Your task to perform on an android device: Open settings on Google Maps Image 0: 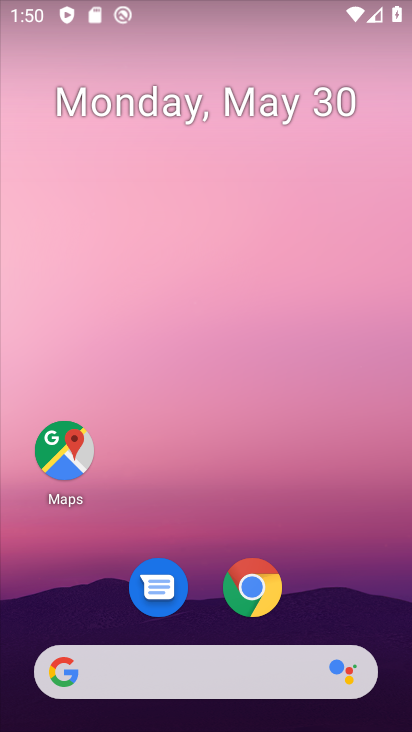
Step 0: click (67, 457)
Your task to perform on an android device: Open settings on Google Maps Image 1: 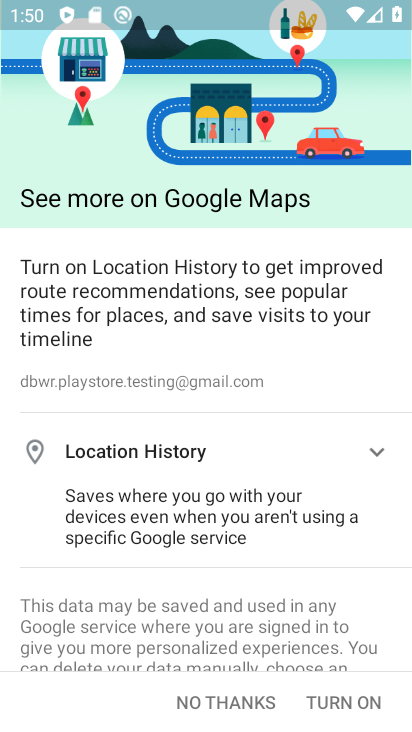
Step 1: click (176, 693)
Your task to perform on an android device: Open settings on Google Maps Image 2: 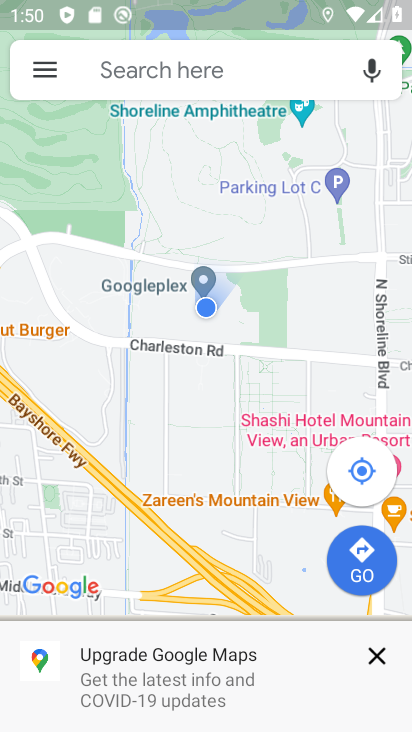
Step 2: click (40, 75)
Your task to perform on an android device: Open settings on Google Maps Image 3: 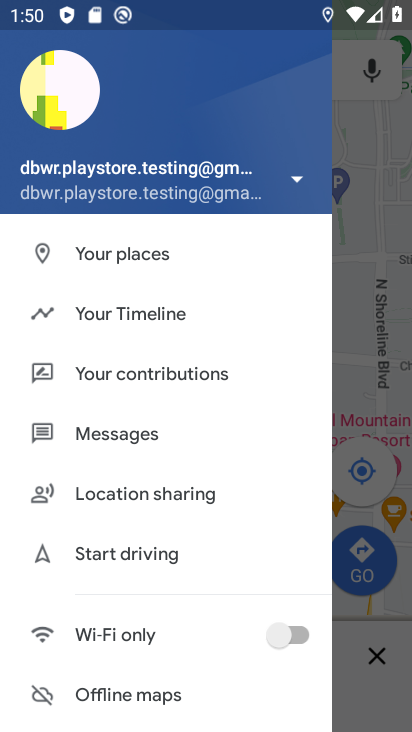
Step 3: drag from (193, 517) to (222, 116)
Your task to perform on an android device: Open settings on Google Maps Image 4: 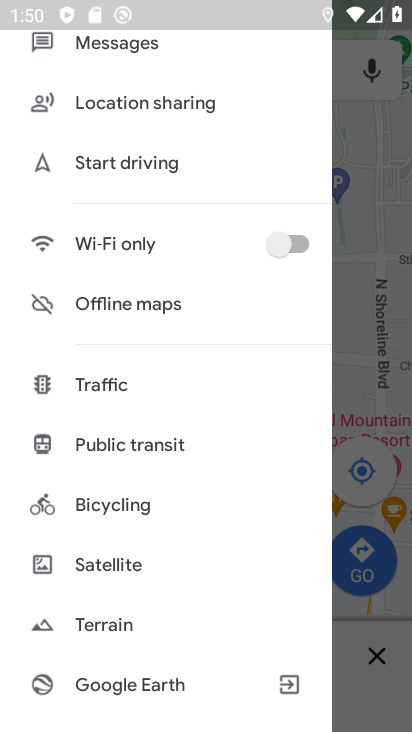
Step 4: drag from (206, 587) to (249, 163)
Your task to perform on an android device: Open settings on Google Maps Image 5: 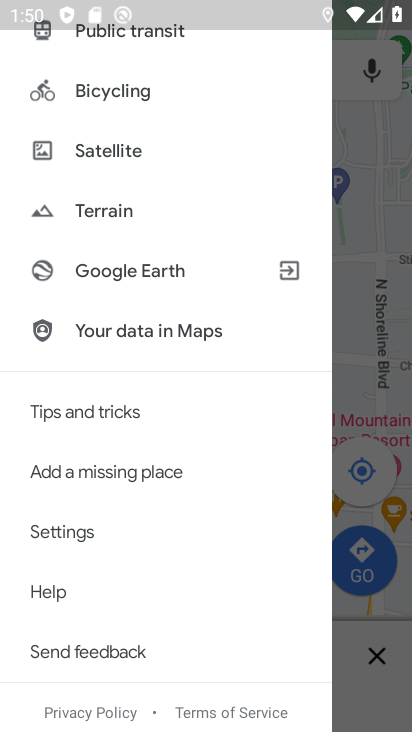
Step 5: click (70, 532)
Your task to perform on an android device: Open settings on Google Maps Image 6: 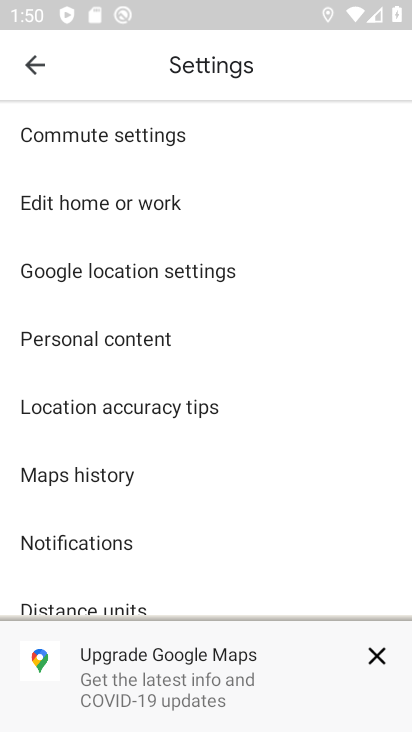
Step 6: click (382, 660)
Your task to perform on an android device: Open settings on Google Maps Image 7: 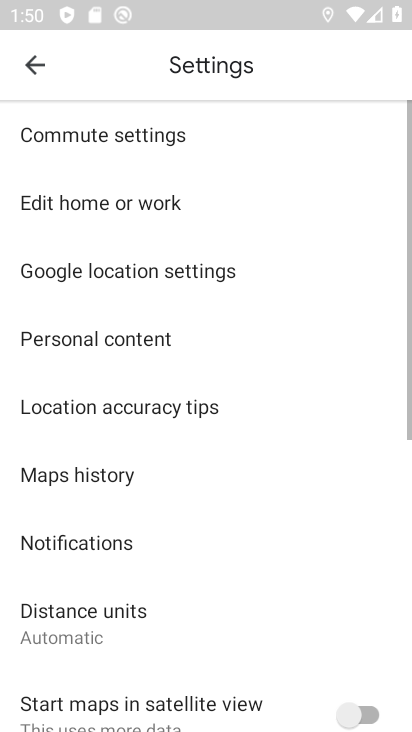
Step 7: task complete